Your task to perform on an android device: Open calendar and show me the second week of next month Image 0: 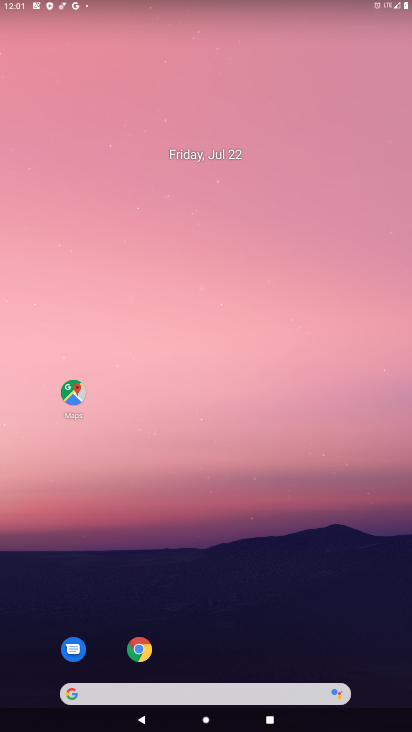
Step 0: drag from (302, 584) to (244, 72)
Your task to perform on an android device: Open calendar and show me the second week of next month Image 1: 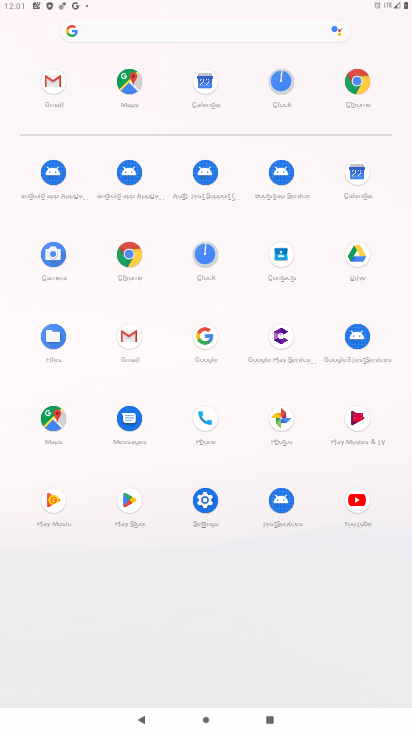
Step 1: click (359, 178)
Your task to perform on an android device: Open calendar and show me the second week of next month Image 2: 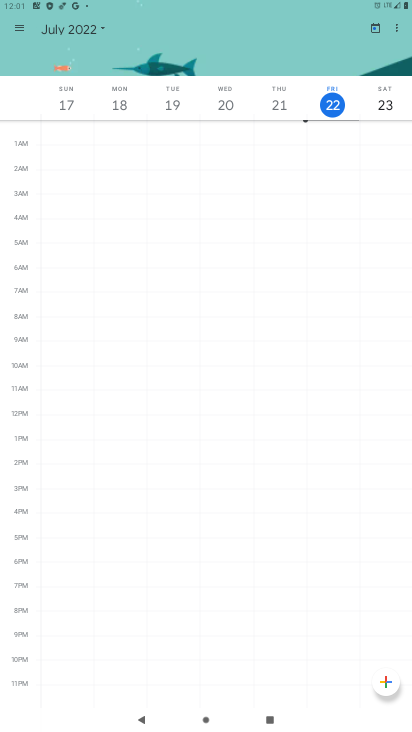
Step 2: click (83, 31)
Your task to perform on an android device: Open calendar and show me the second week of next month Image 3: 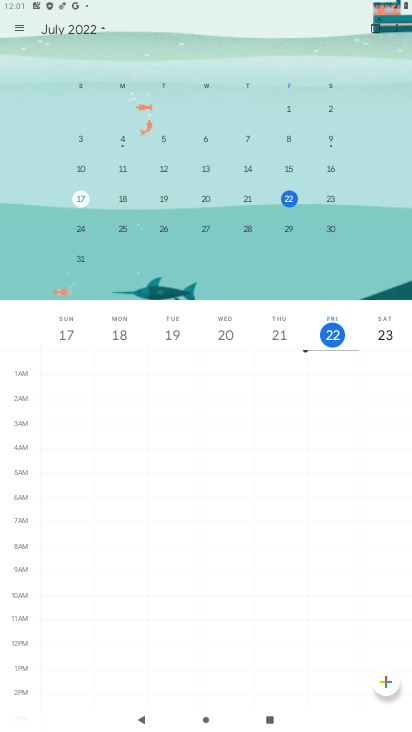
Step 3: drag from (340, 198) to (108, 218)
Your task to perform on an android device: Open calendar and show me the second week of next month Image 4: 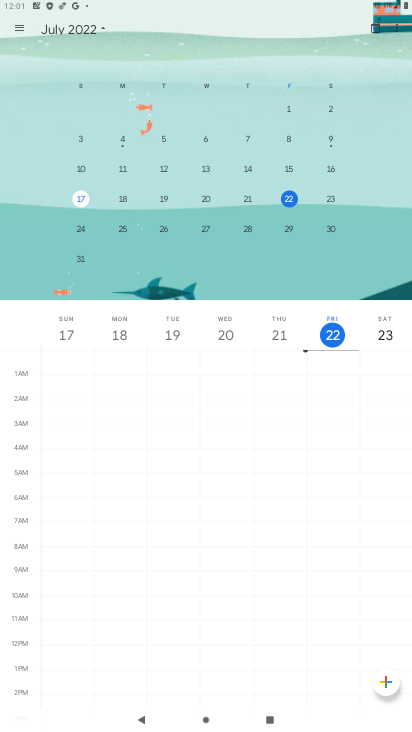
Step 4: drag from (326, 198) to (30, 200)
Your task to perform on an android device: Open calendar and show me the second week of next month Image 5: 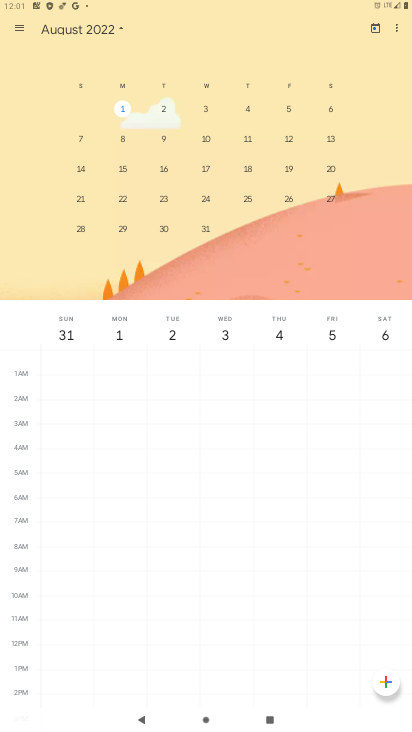
Step 5: click (172, 139)
Your task to perform on an android device: Open calendar and show me the second week of next month Image 6: 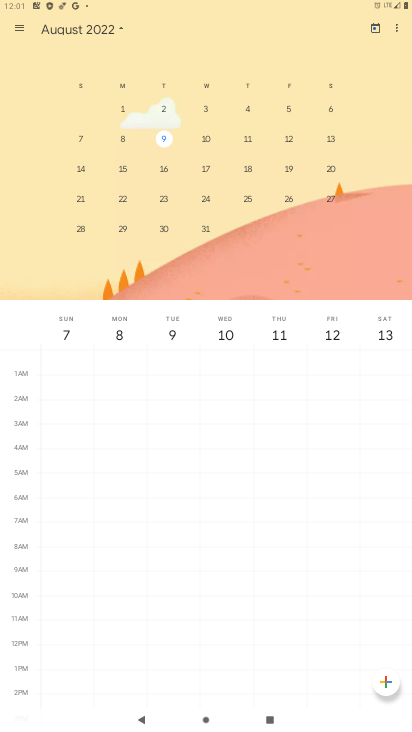
Step 6: task complete